Your task to perform on an android device: Turn on the flashlight Image 0: 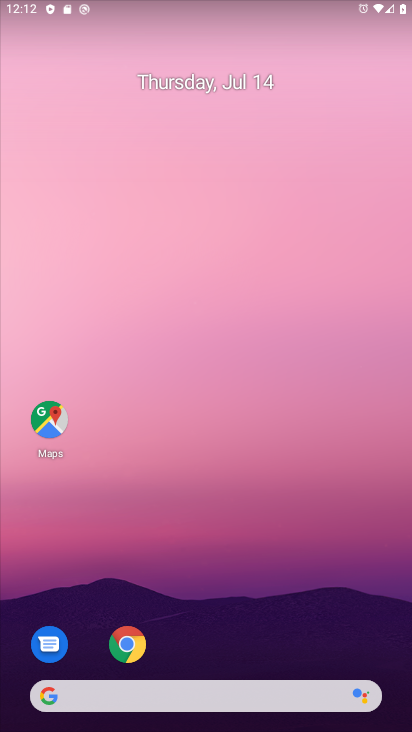
Step 0: drag from (258, 665) to (40, 50)
Your task to perform on an android device: Turn on the flashlight Image 1: 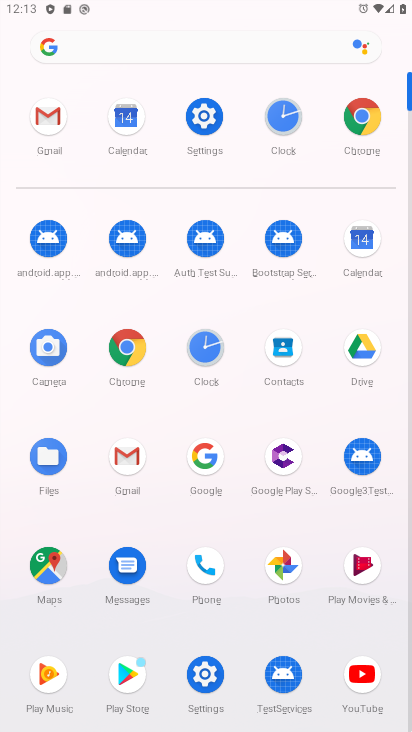
Step 1: click (193, 117)
Your task to perform on an android device: Turn on the flashlight Image 2: 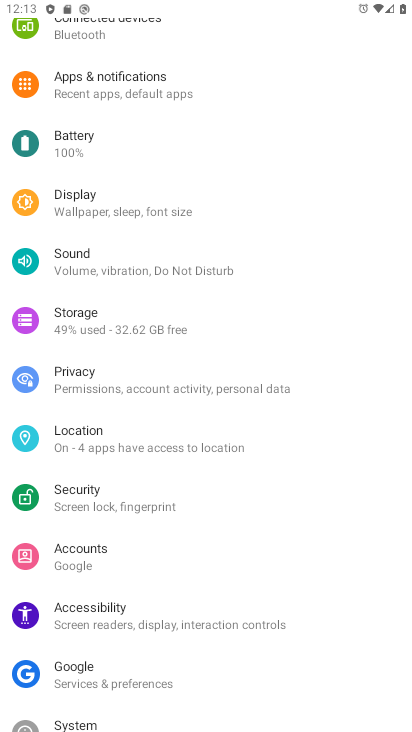
Step 2: task complete